Your task to perform on an android device: Show me recent news Image 0: 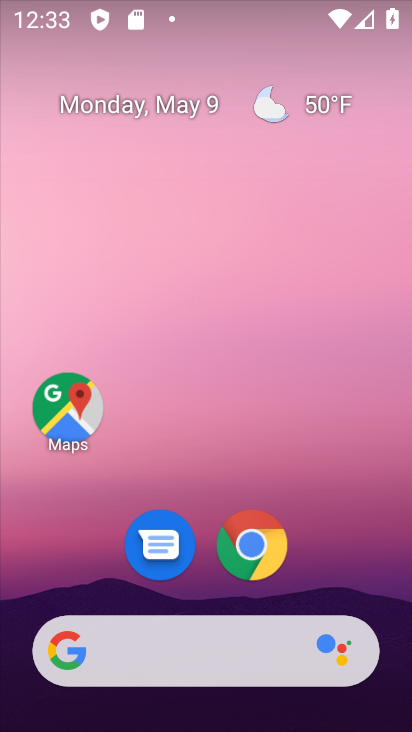
Step 0: drag from (209, 573) to (223, 227)
Your task to perform on an android device: Show me recent news Image 1: 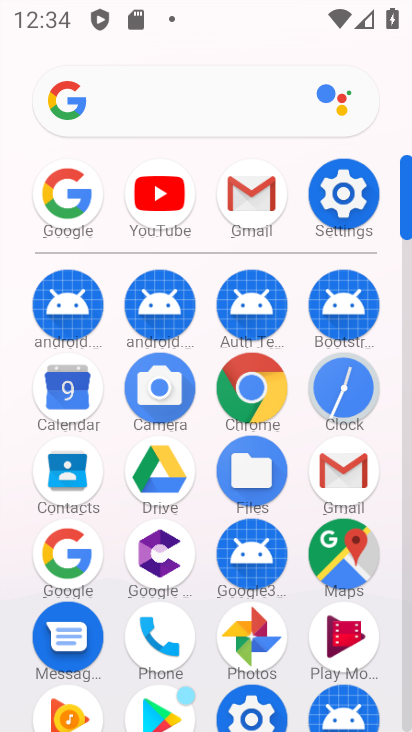
Step 1: click (89, 553)
Your task to perform on an android device: Show me recent news Image 2: 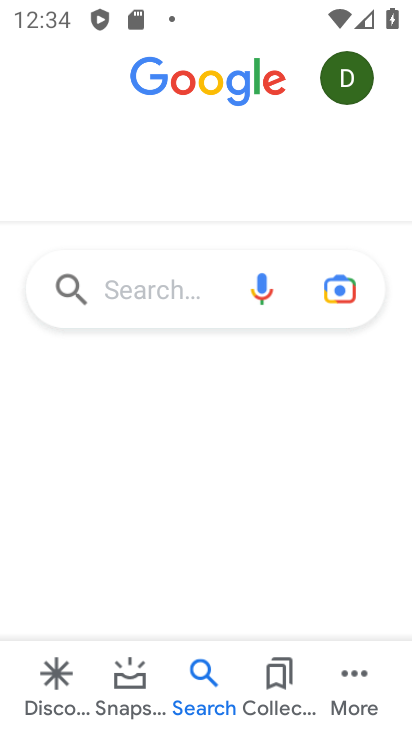
Step 2: click (122, 297)
Your task to perform on an android device: Show me recent news Image 3: 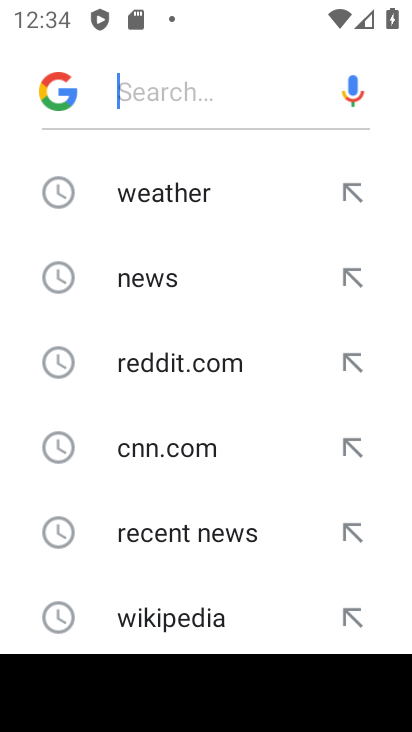
Step 3: task complete